Your task to perform on an android device: Go to Reddit.com Image 0: 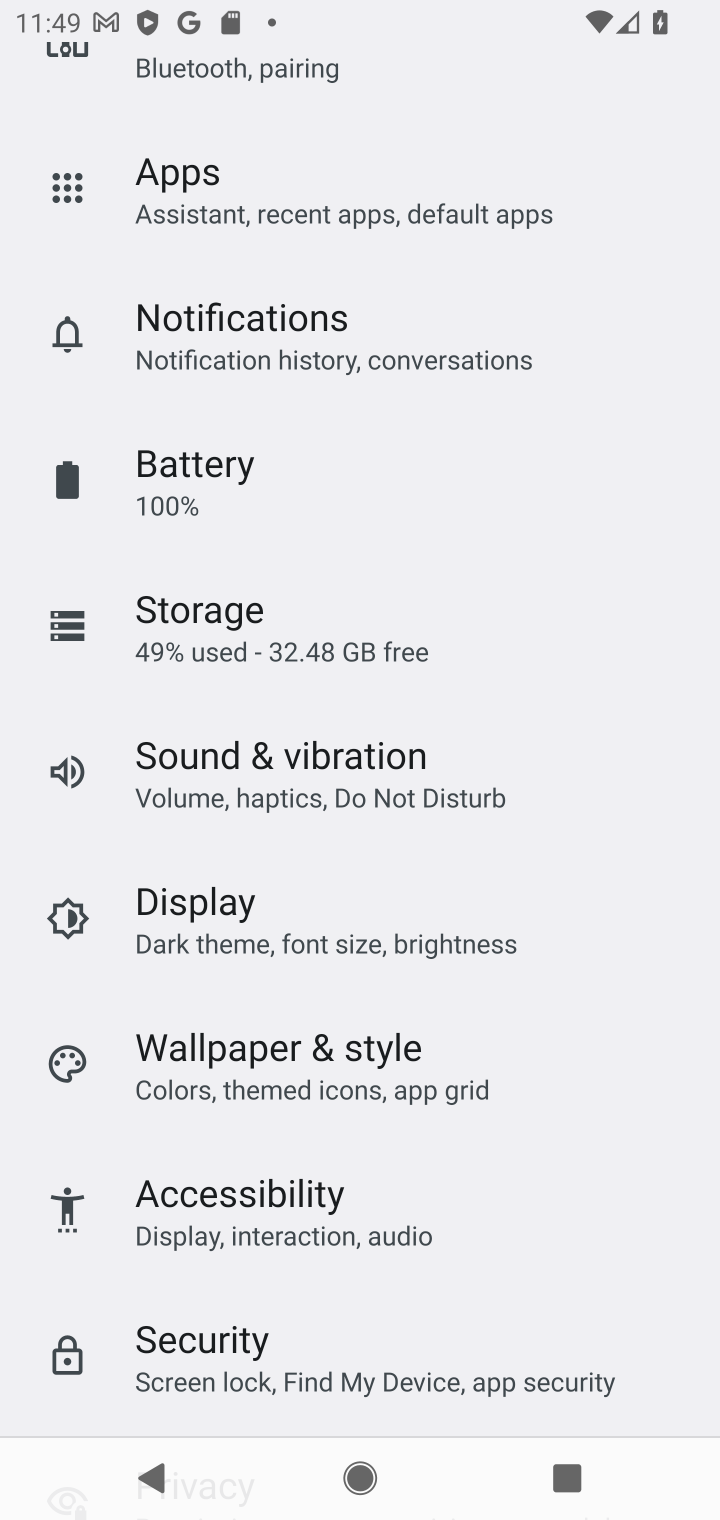
Step 0: press home button
Your task to perform on an android device: Go to Reddit.com Image 1: 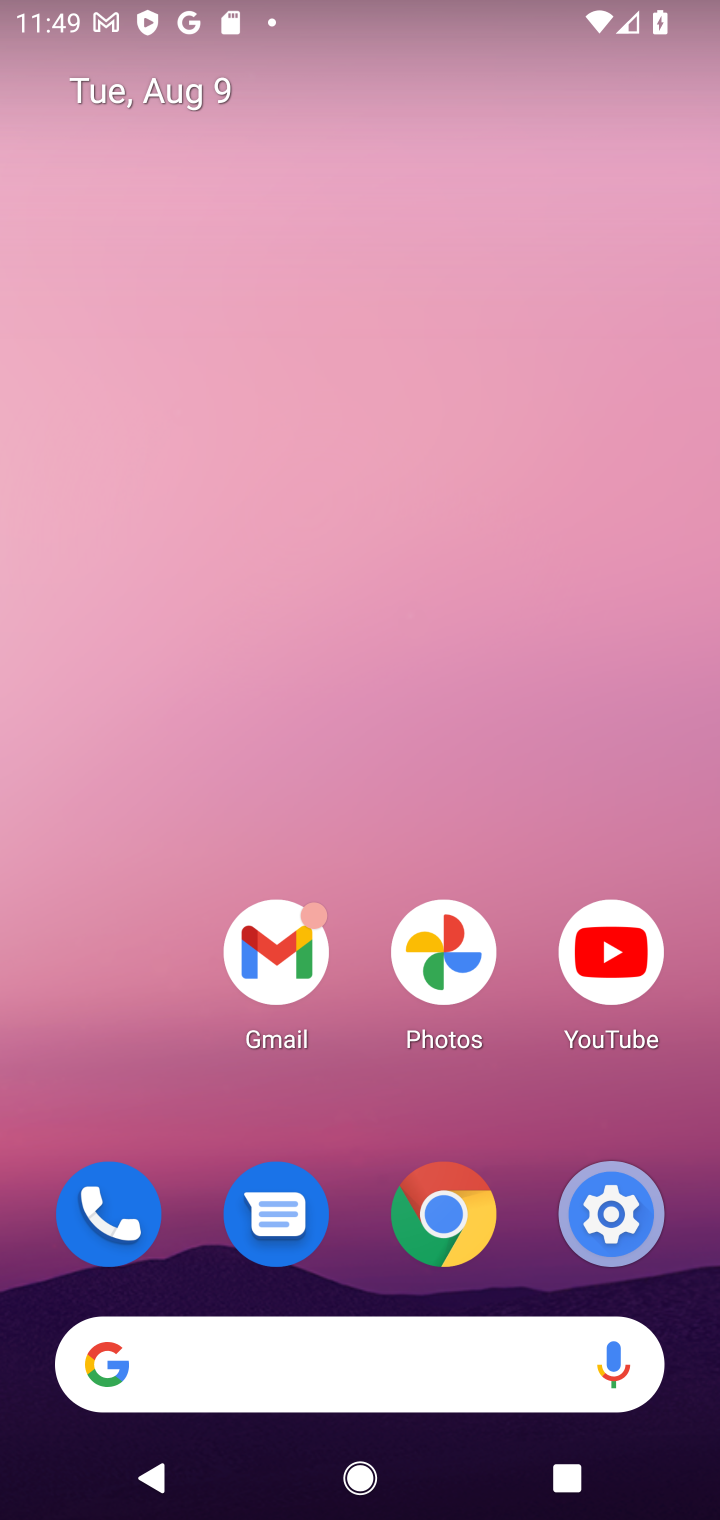
Step 1: click (487, 1361)
Your task to perform on an android device: Go to Reddit.com Image 2: 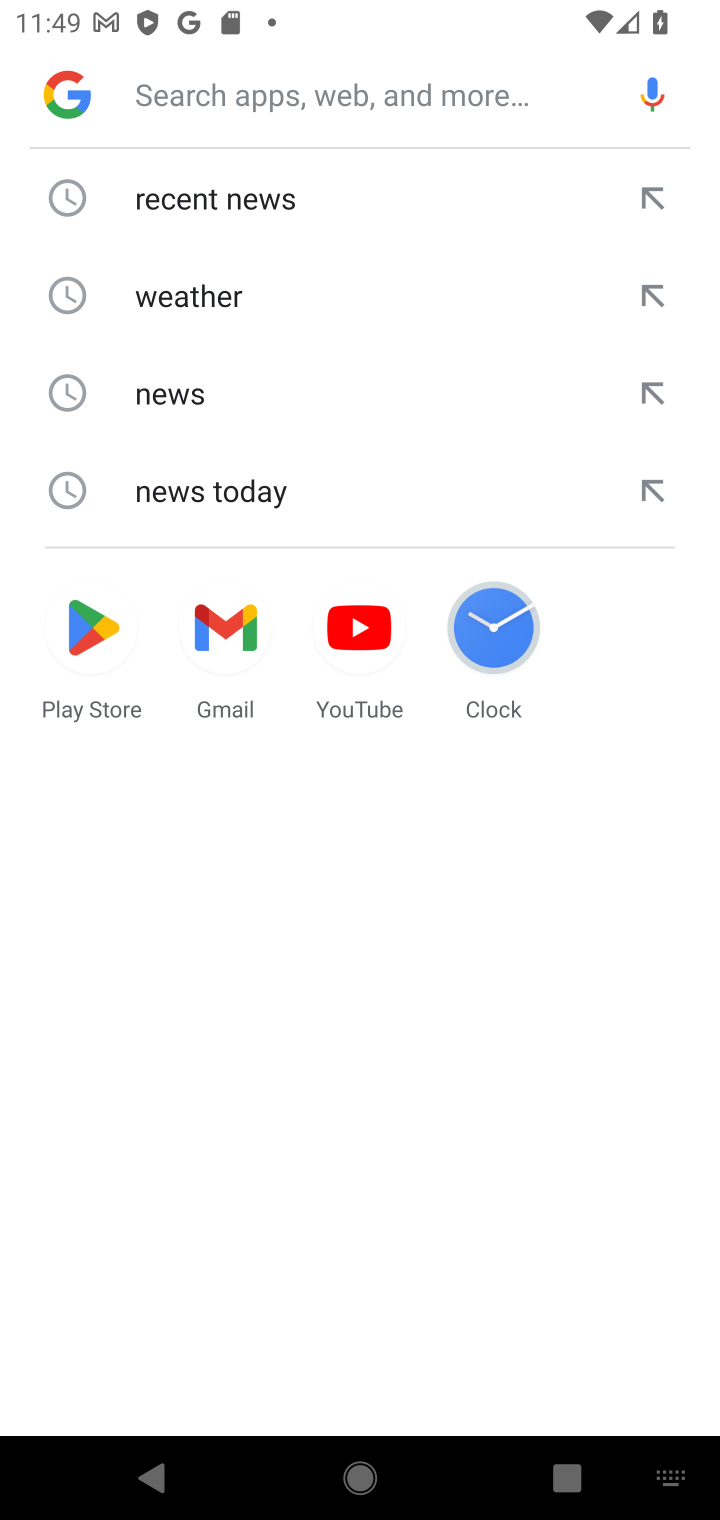
Step 2: type "reddit.com"
Your task to perform on an android device: Go to Reddit.com Image 3: 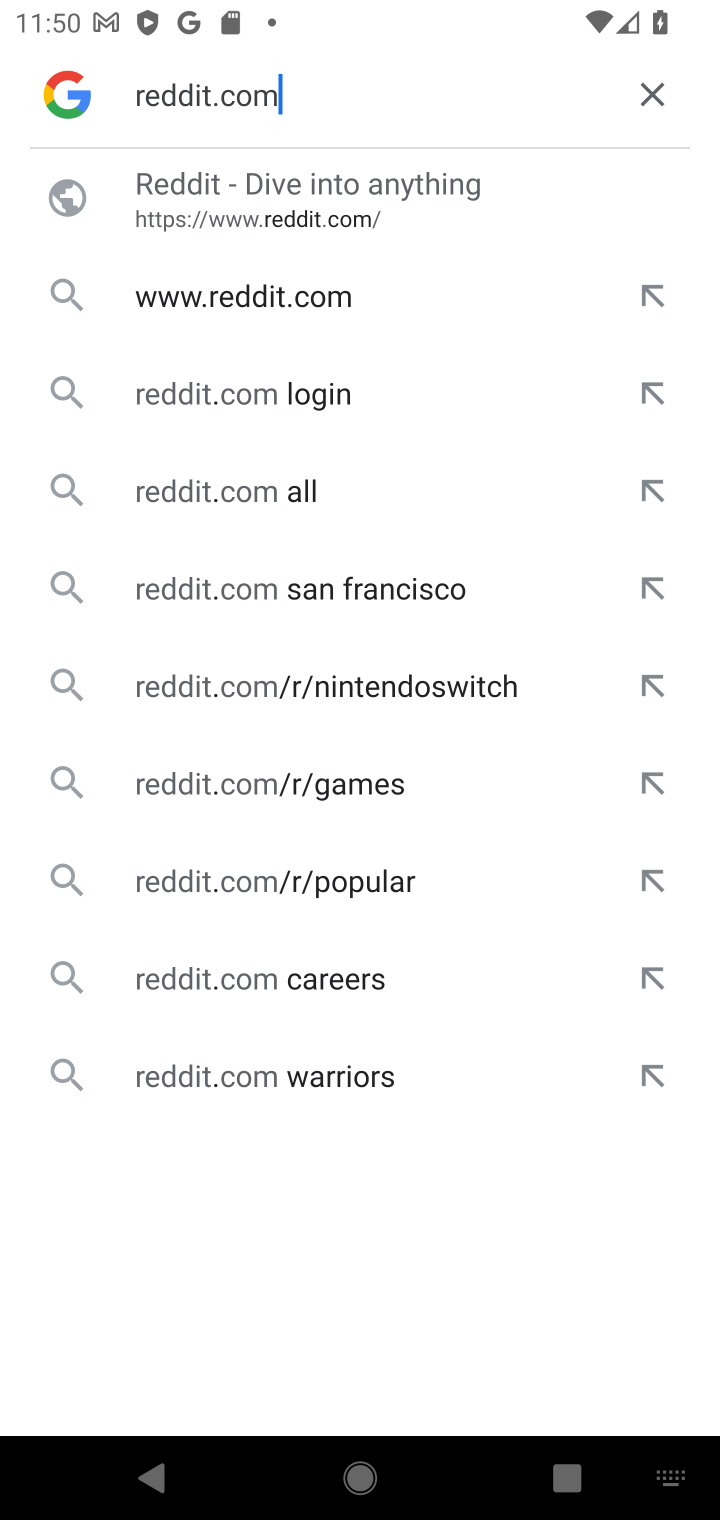
Step 3: click (302, 224)
Your task to perform on an android device: Go to Reddit.com Image 4: 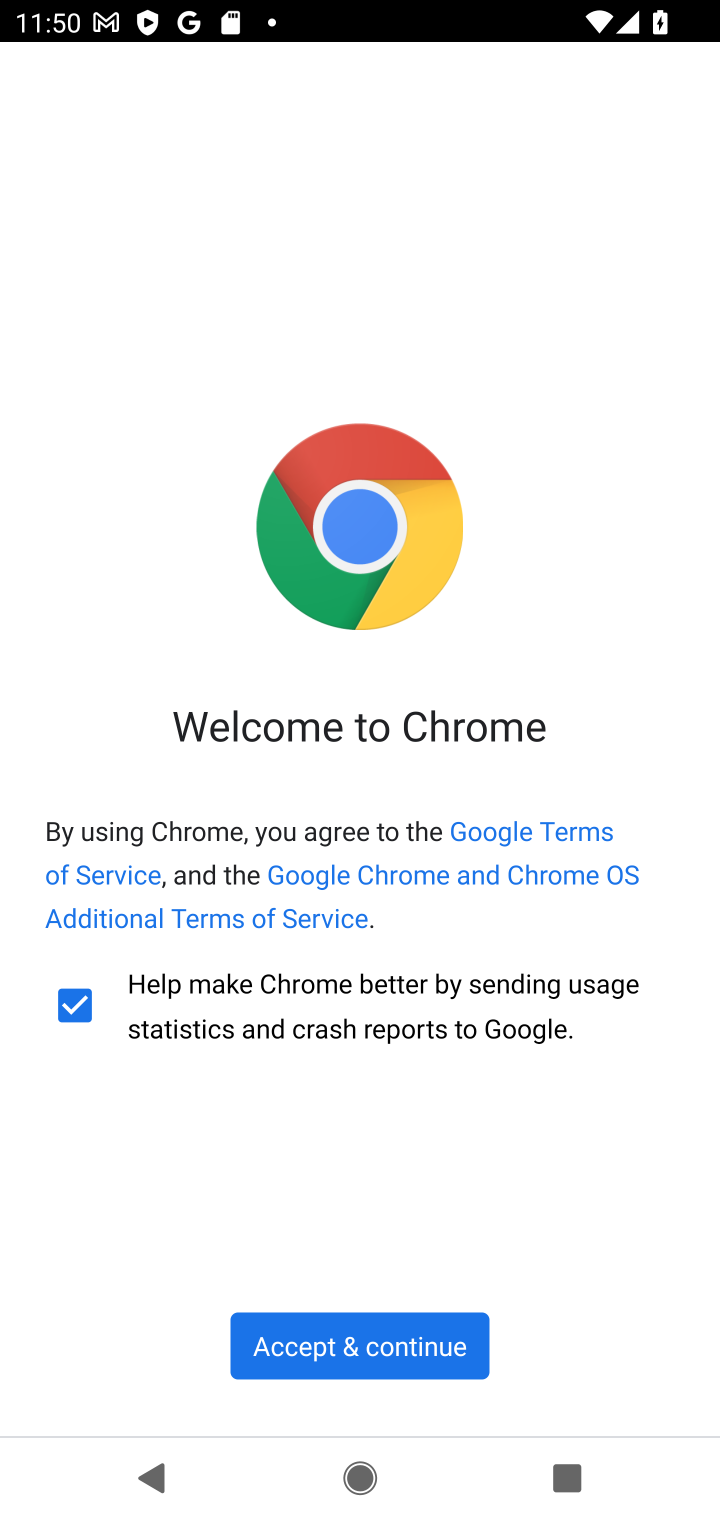
Step 4: click (299, 1349)
Your task to perform on an android device: Go to Reddit.com Image 5: 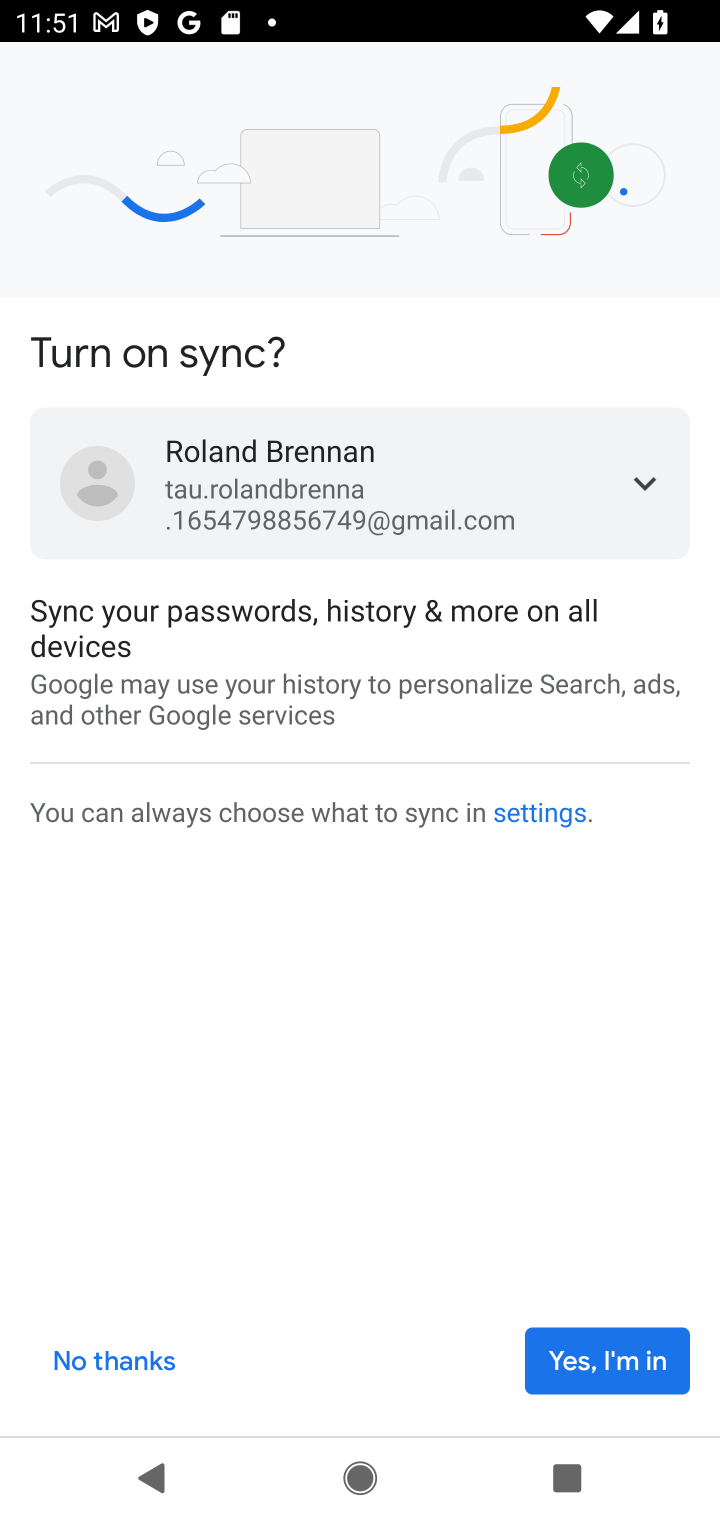
Step 5: click (567, 1351)
Your task to perform on an android device: Go to Reddit.com Image 6: 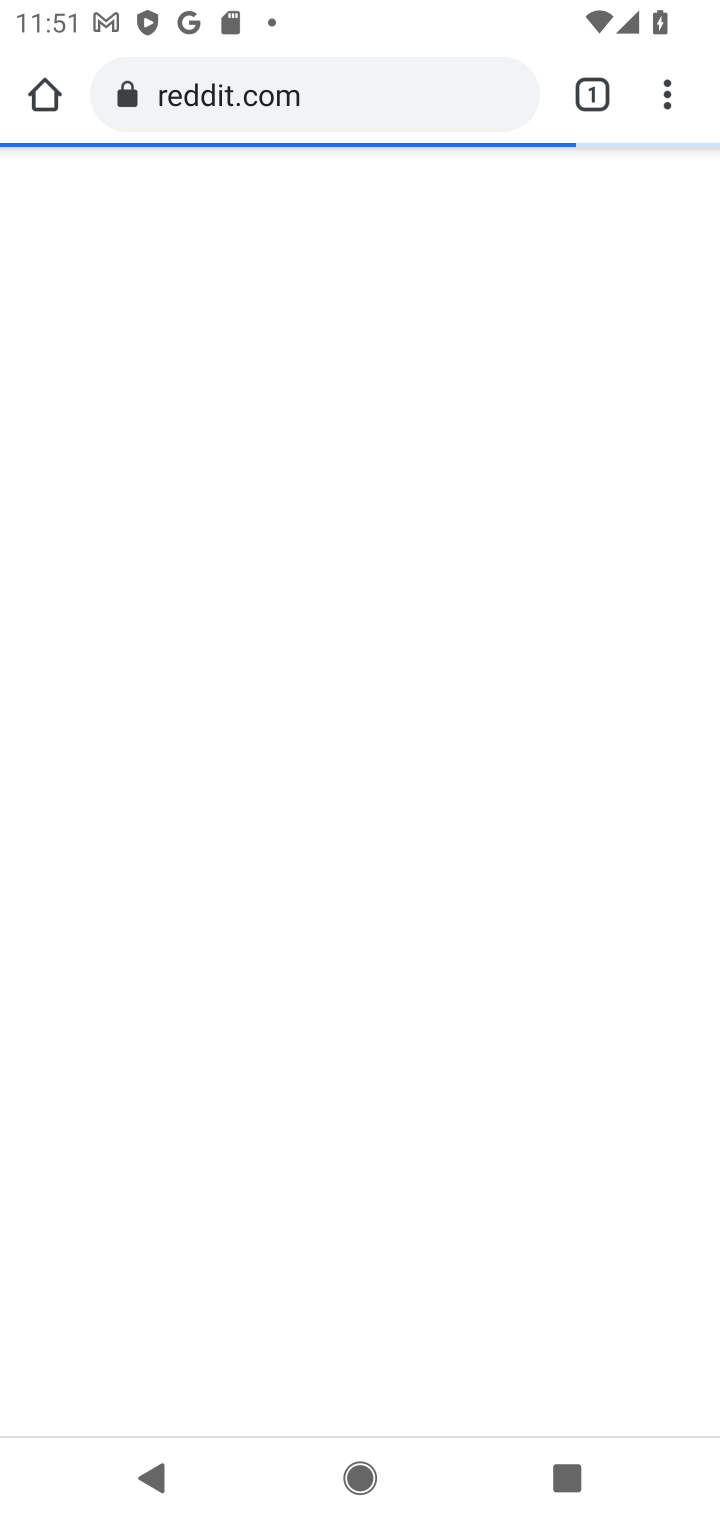
Step 6: task complete